Your task to perform on an android device: Do I have any events today? Image 0: 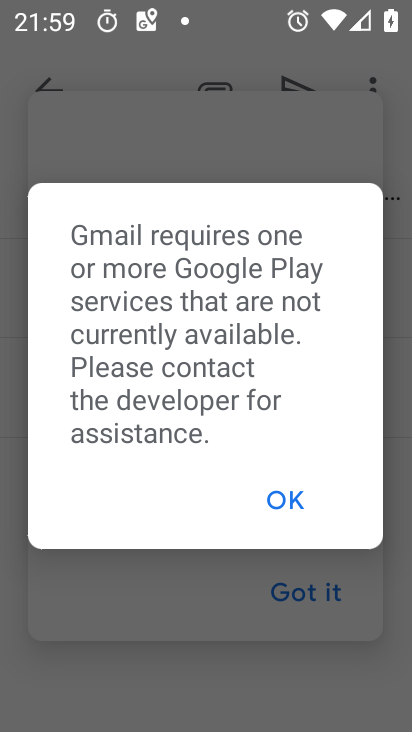
Step 0: press home button
Your task to perform on an android device: Do I have any events today? Image 1: 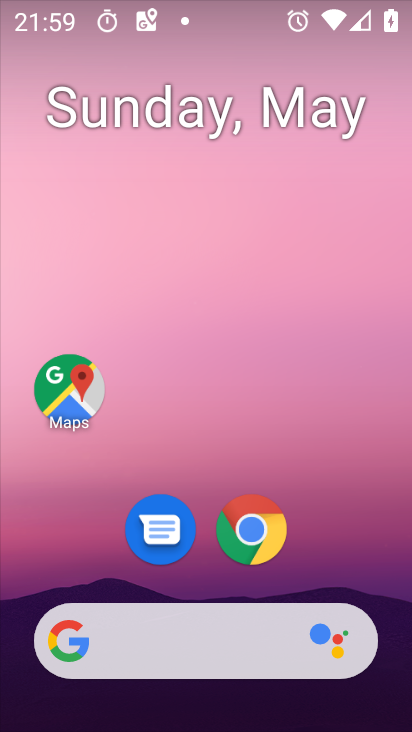
Step 1: drag from (338, 599) to (298, 0)
Your task to perform on an android device: Do I have any events today? Image 2: 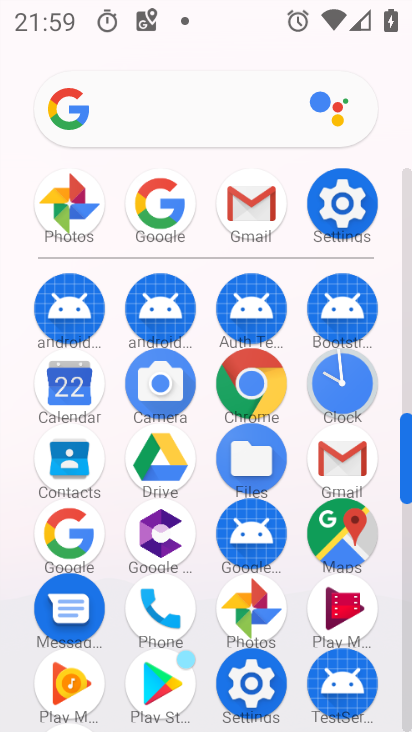
Step 2: click (73, 388)
Your task to perform on an android device: Do I have any events today? Image 3: 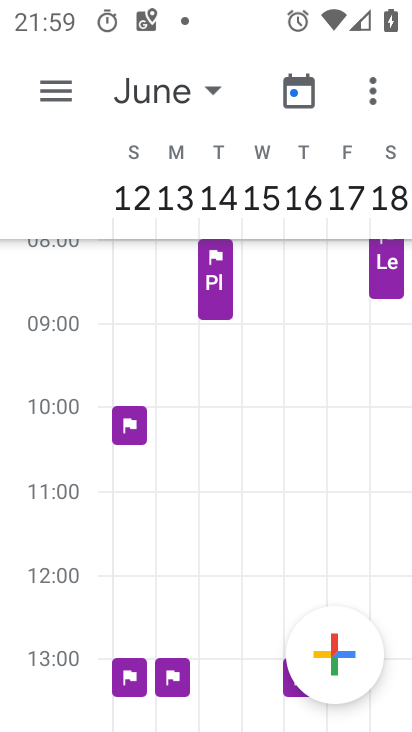
Step 3: click (294, 95)
Your task to perform on an android device: Do I have any events today? Image 4: 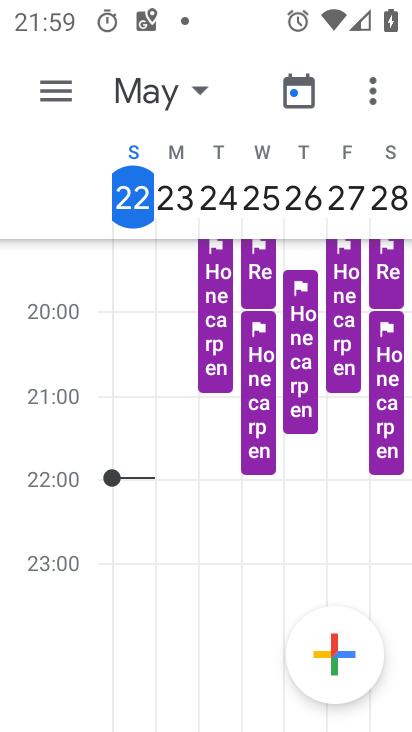
Step 4: click (131, 198)
Your task to perform on an android device: Do I have any events today? Image 5: 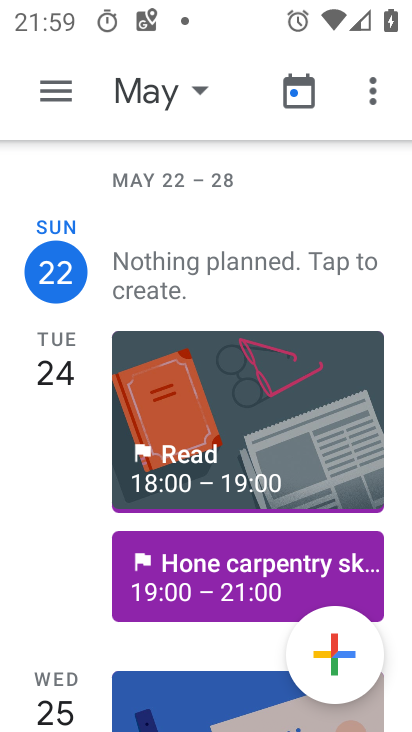
Step 5: click (156, 279)
Your task to perform on an android device: Do I have any events today? Image 6: 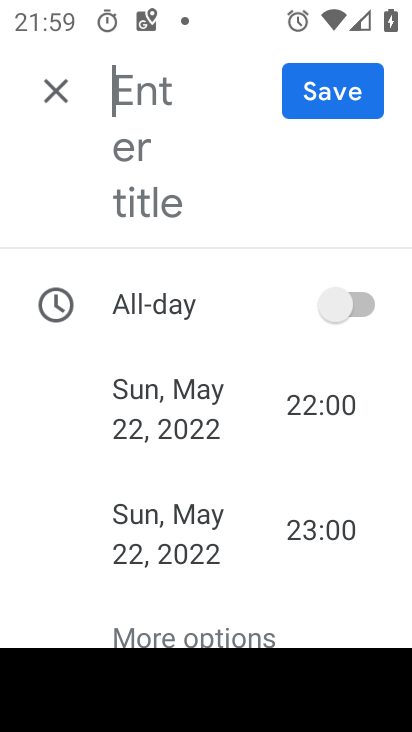
Step 6: task complete